Your task to perform on an android device: Add logitech g910 to the cart on bestbuy Image 0: 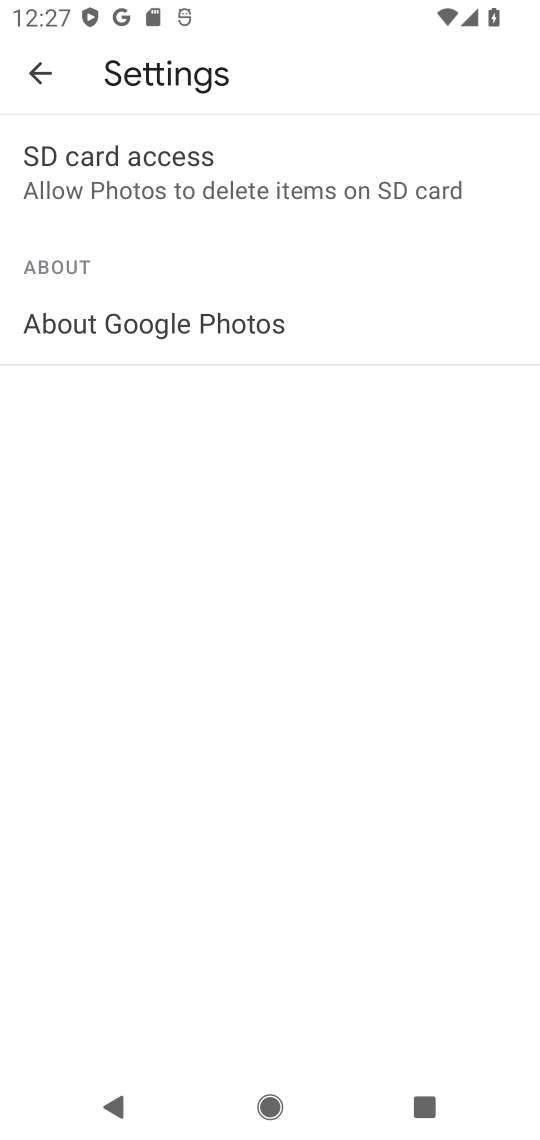
Step 0: press home button
Your task to perform on an android device: Add logitech g910 to the cart on bestbuy Image 1: 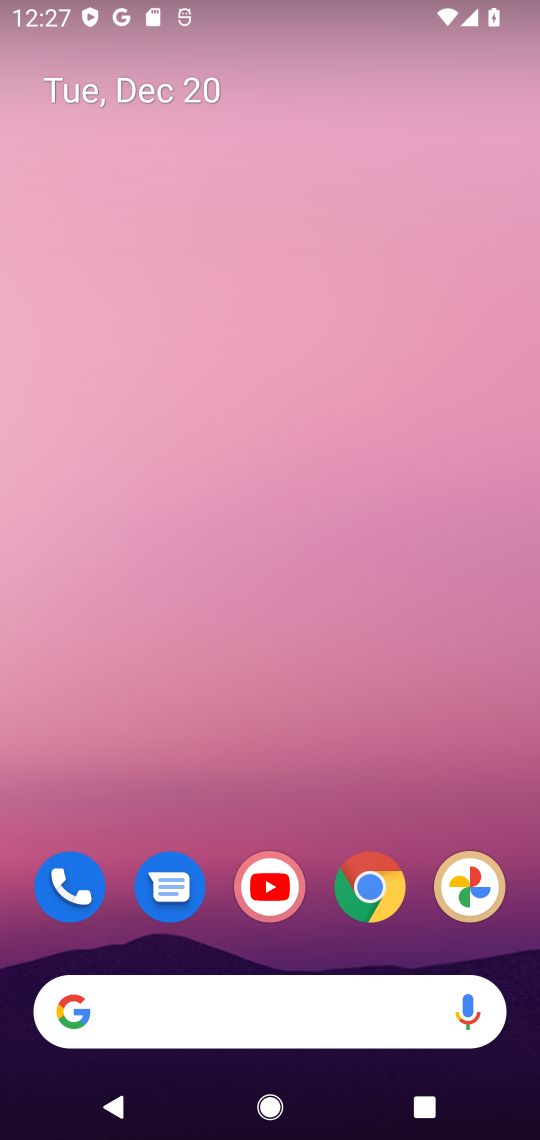
Step 1: click (379, 873)
Your task to perform on an android device: Add logitech g910 to the cart on bestbuy Image 2: 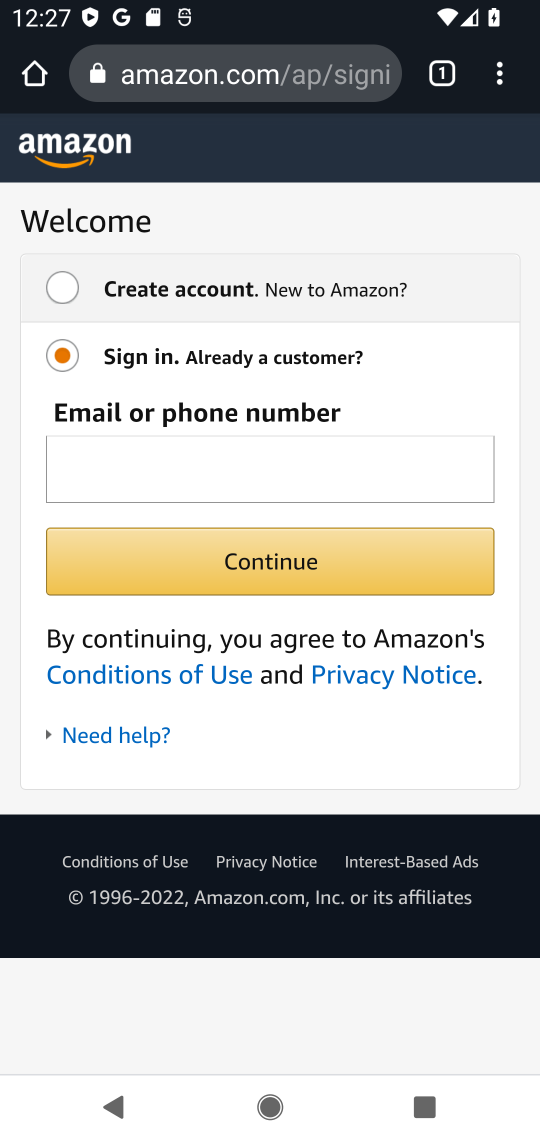
Step 2: click (258, 69)
Your task to perform on an android device: Add logitech g910 to the cart on bestbuy Image 3: 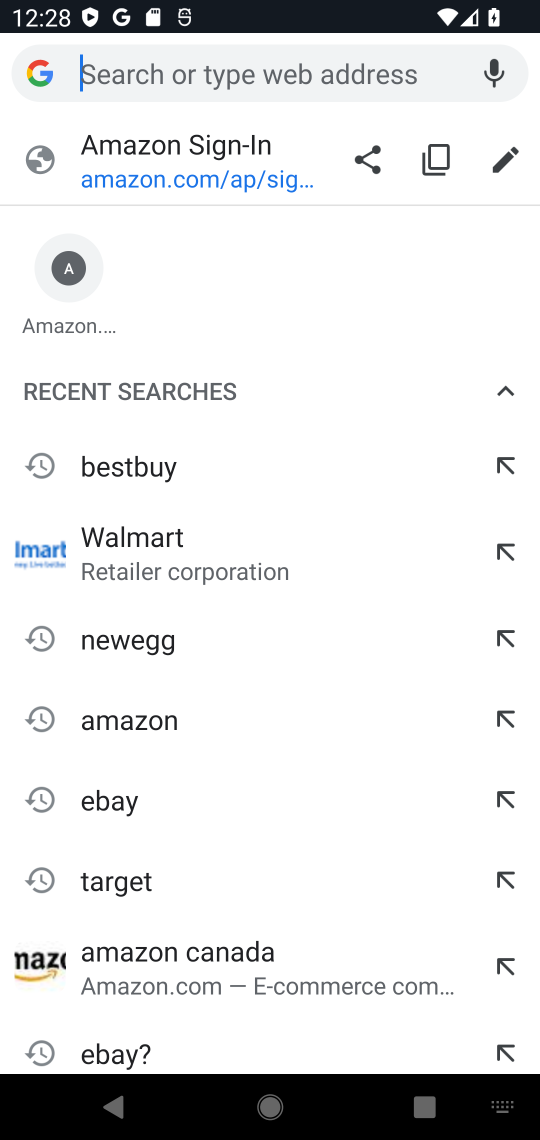
Step 3: click (186, 478)
Your task to perform on an android device: Add logitech g910 to the cart on bestbuy Image 4: 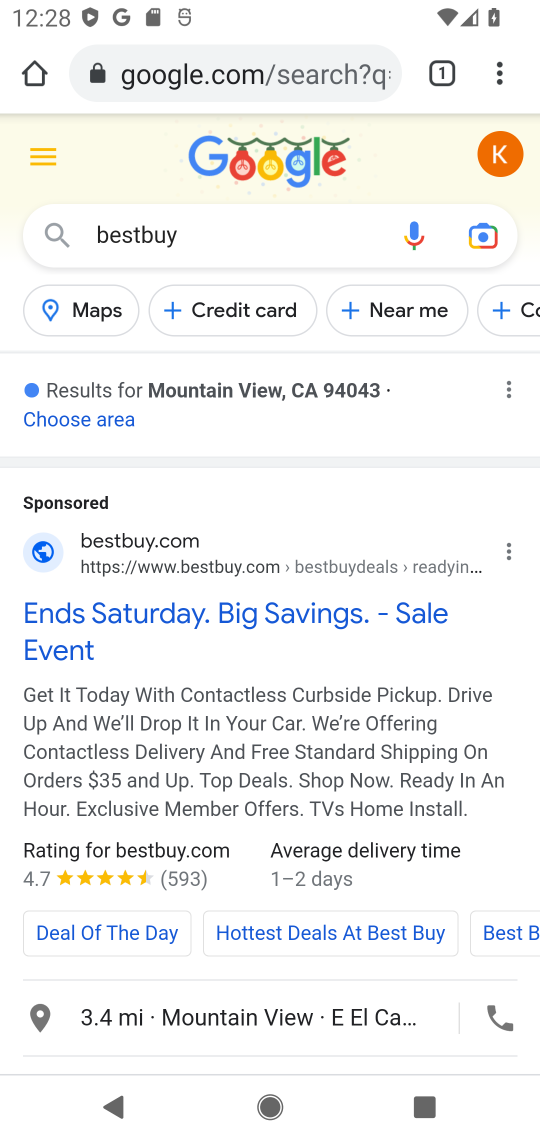
Step 4: drag from (300, 860) to (336, 409)
Your task to perform on an android device: Add logitech g910 to the cart on bestbuy Image 5: 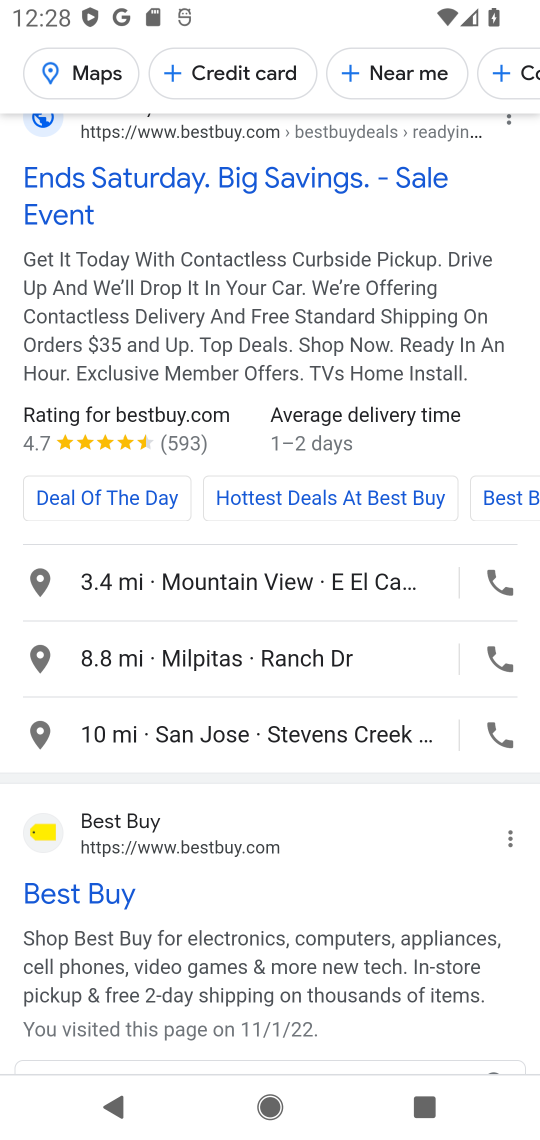
Step 5: click (87, 893)
Your task to perform on an android device: Add logitech g910 to the cart on bestbuy Image 6: 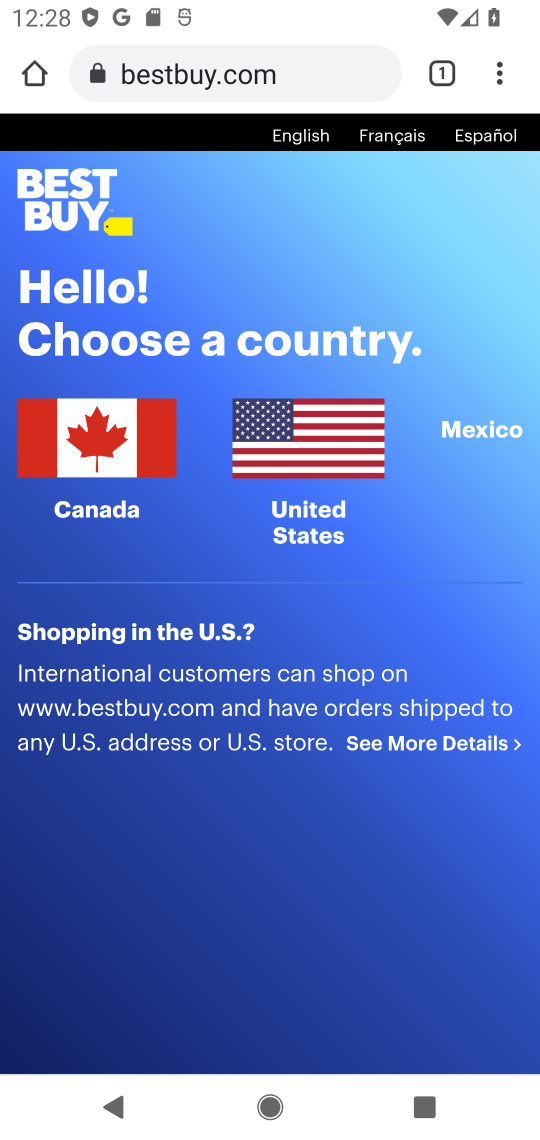
Step 6: click (321, 430)
Your task to perform on an android device: Add logitech g910 to the cart on bestbuy Image 7: 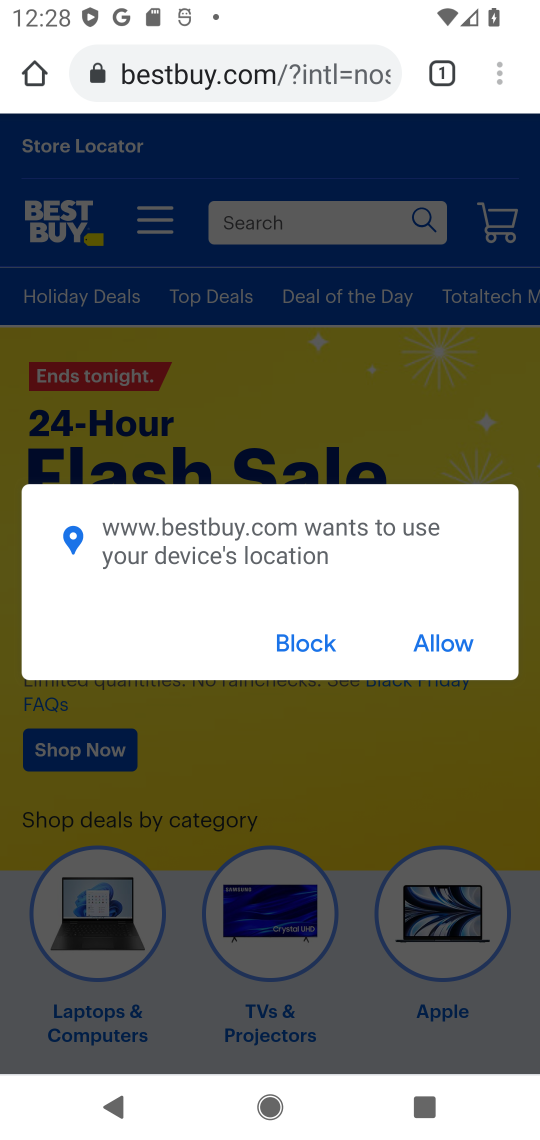
Step 7: click (325, 634)
Your task to perform on an android device: Add logitech g910 to the cart on bestbuy Image 8: 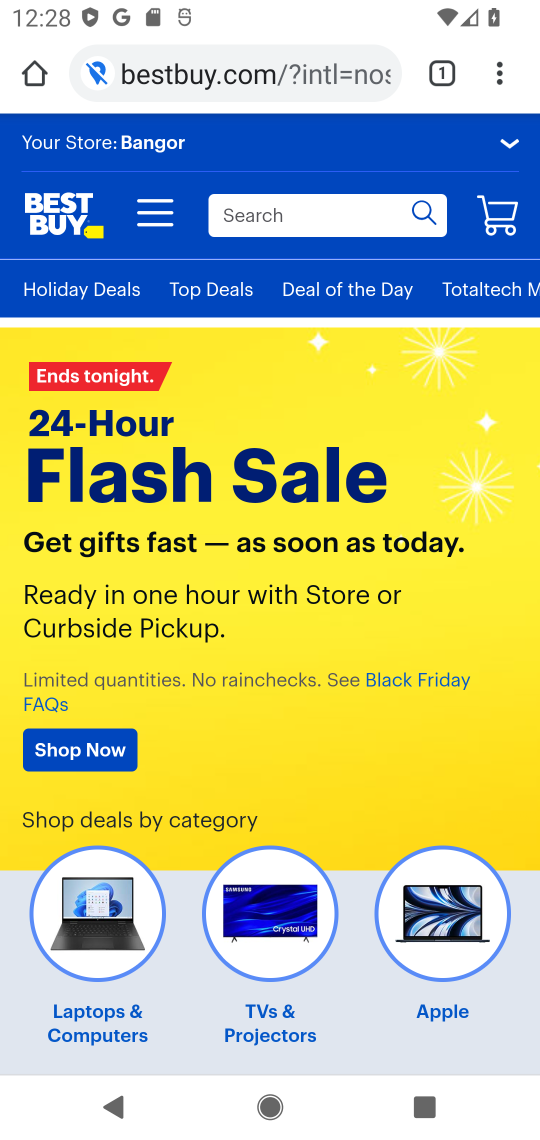
Step 8: click (384, 225)
Your task to perform on an android device: Add logitech g910 to the cart on bestbuy Image 9: 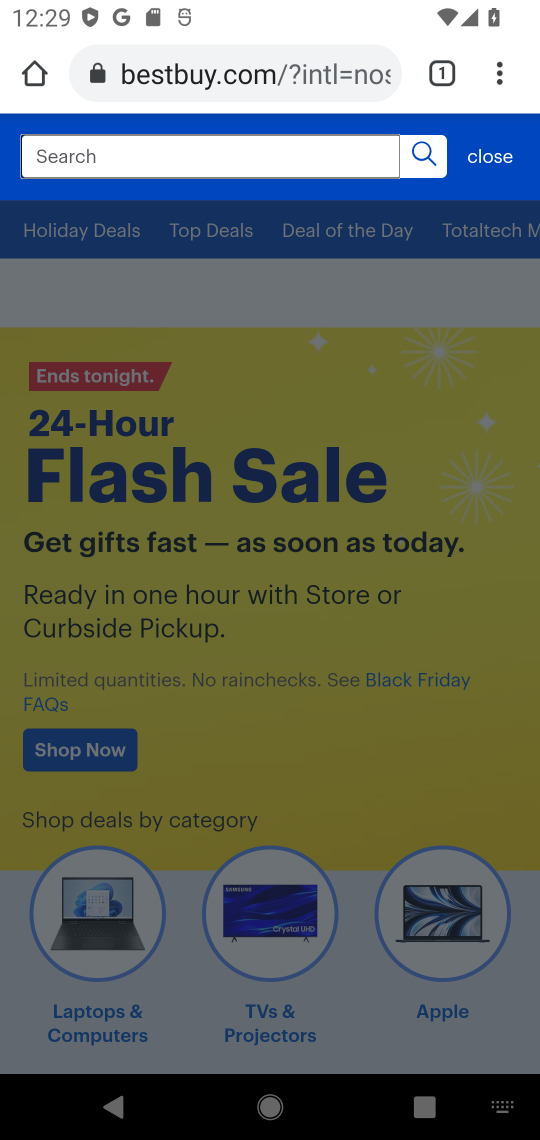
Step 9: type "LOGITECHJ G910"
Your task to perform on an android device: Add logitech g910 to the cart on bestbuy Image 10: 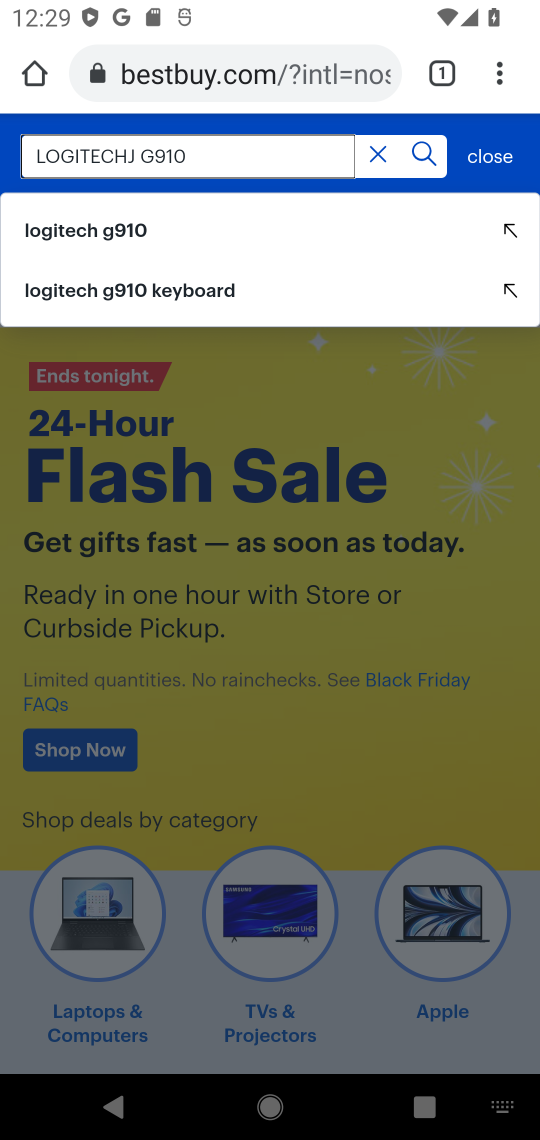
Step 10: click (116, 236)
Your task to perform on an android device: Add logitech g910 to the cart on bestbuy Image 11: 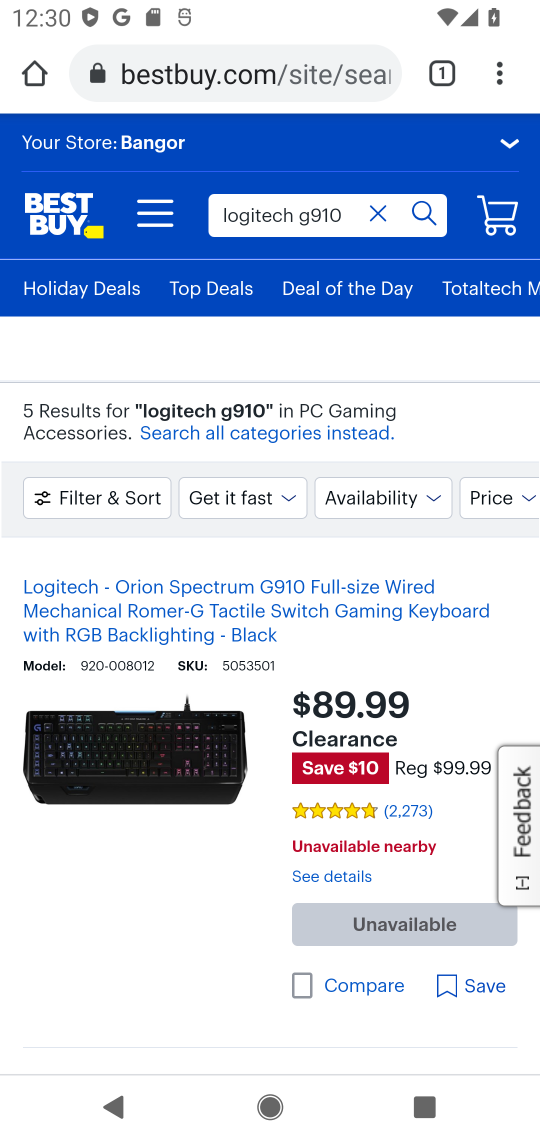
Step 11: task complete